Your task to perform on an android device: uninstall "Google Sheets" Image 0: 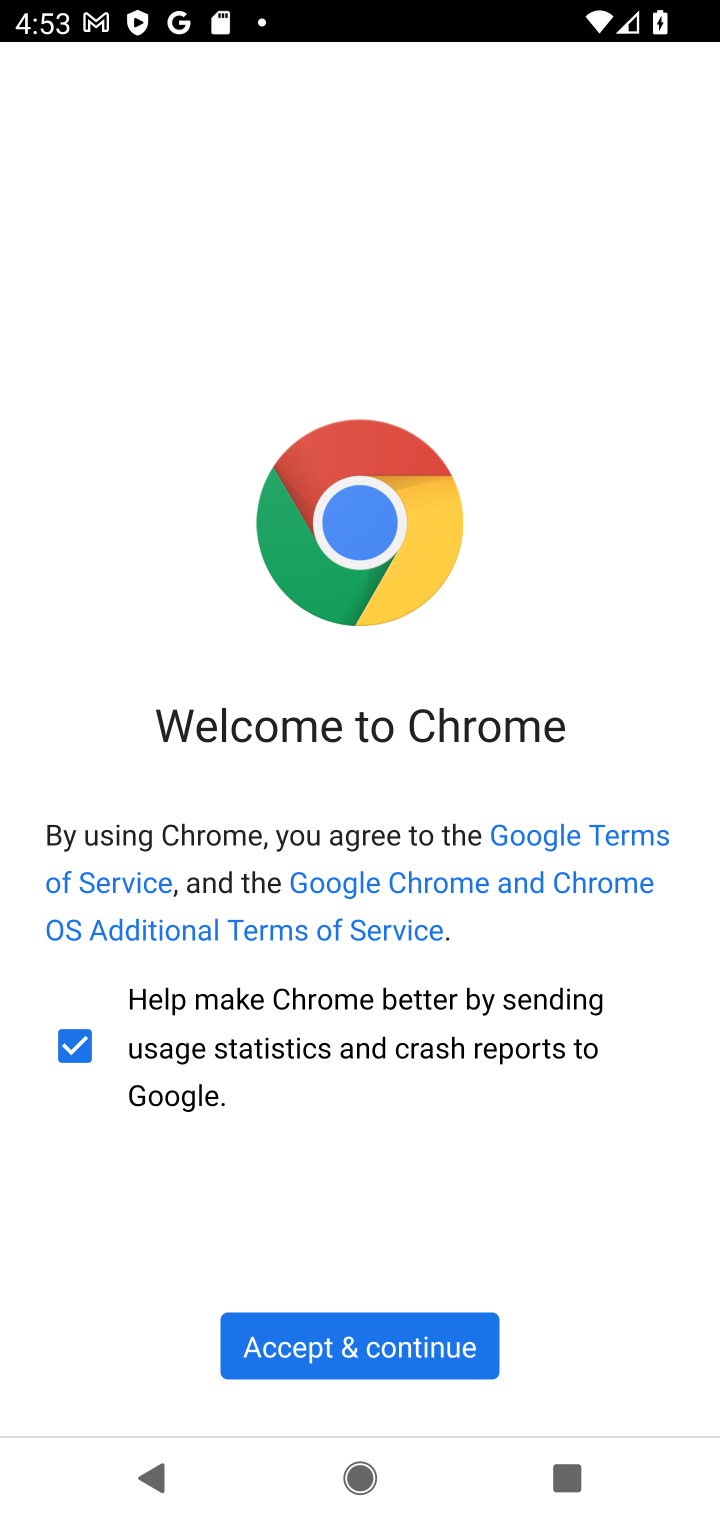
Step 0: press home button
Your task to perform on an android device: uninstall "Google Sheets" Image 1: 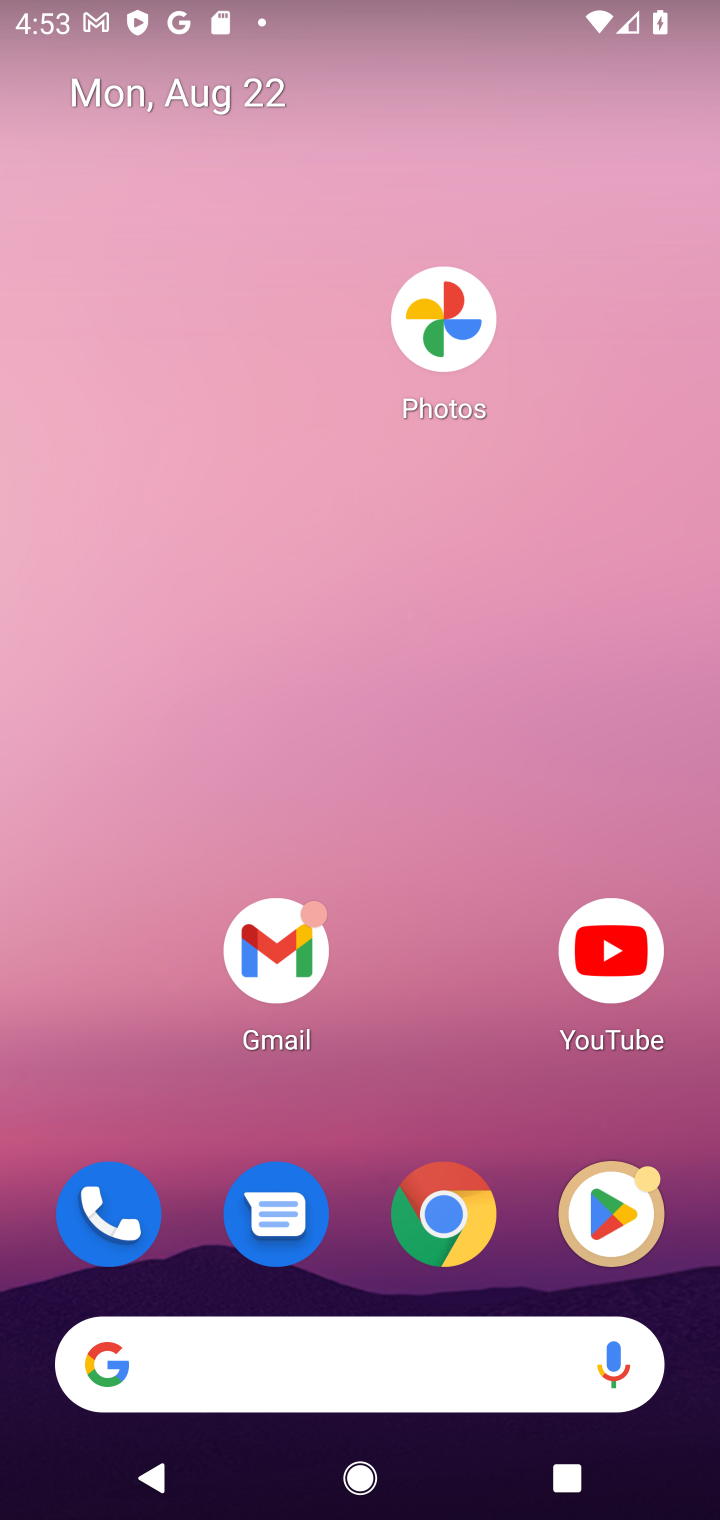
Step 1: click (608, 1211)
Your task to perform on an android device: uninstall "Google Sheets" Image 2: 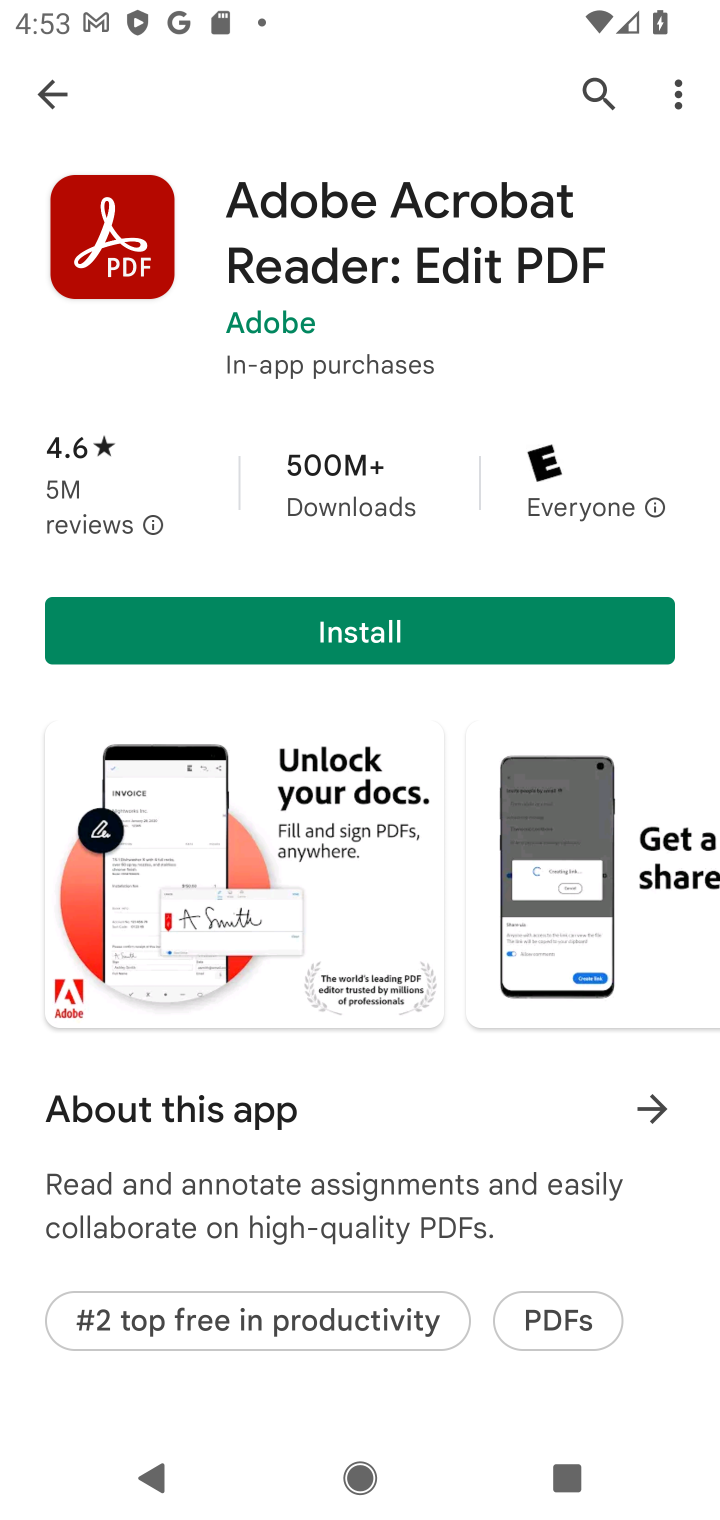
Step 2: click (593, 86)
Your task to perform on an android device: uninstall "Google Sheets" Image 3: 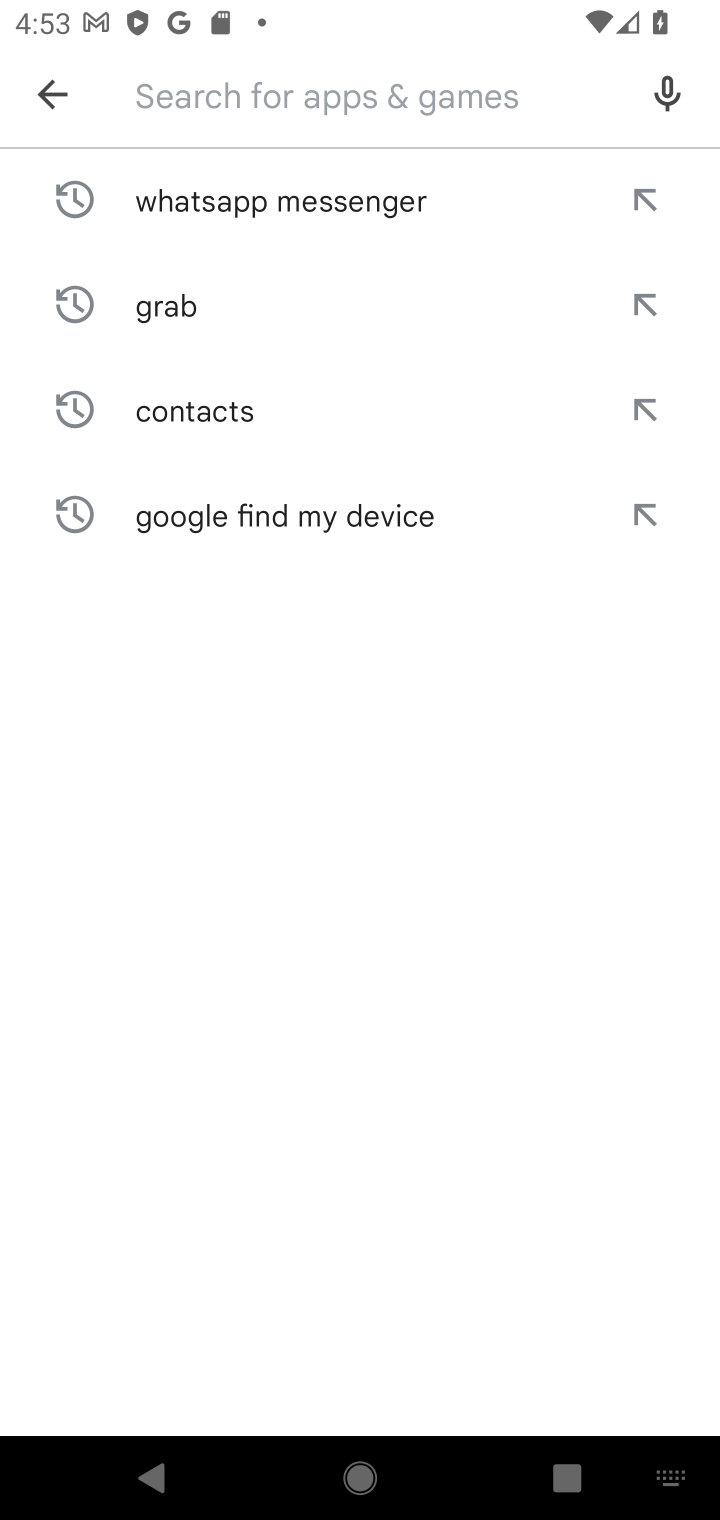
Step 3: type "Google Sheets"
Your task to perform on an android device: uninstall "Google Sheets" Image 4: 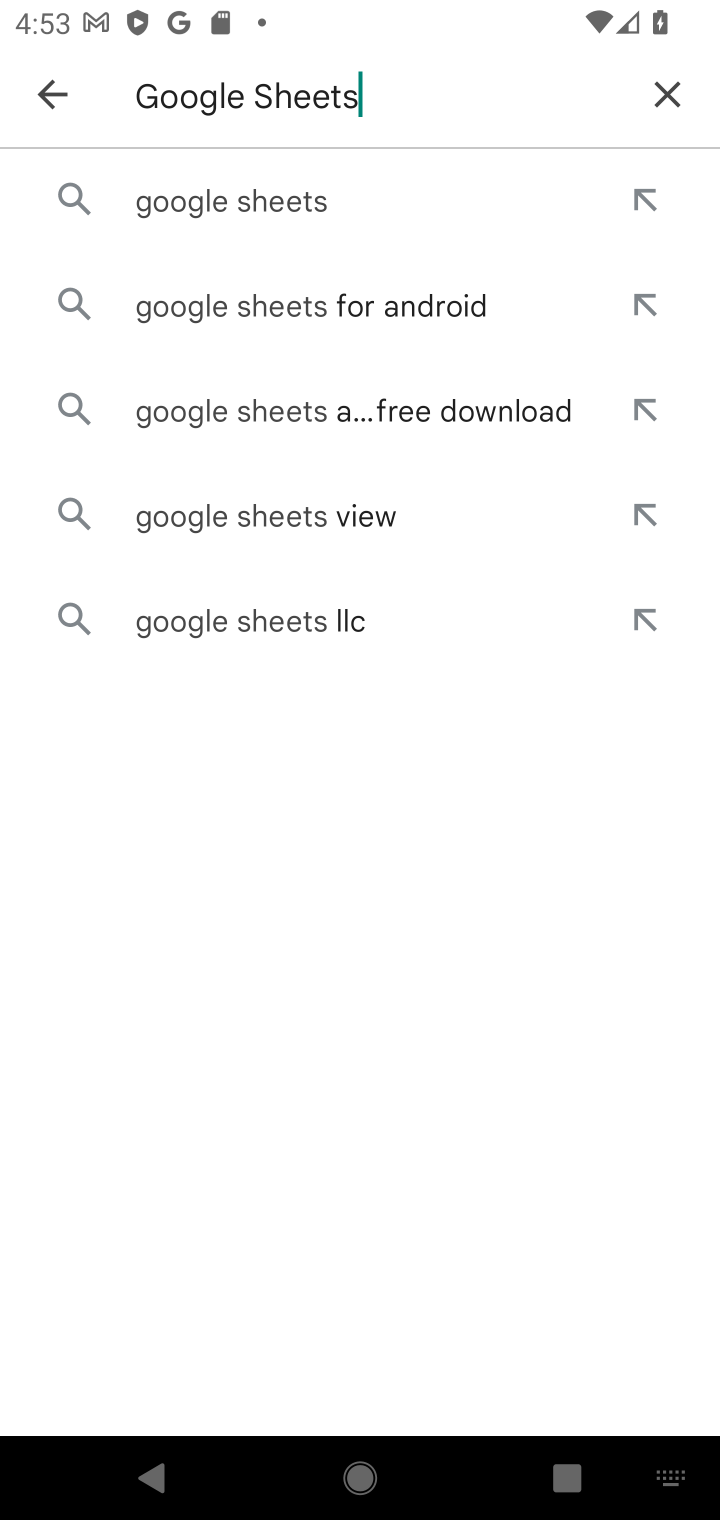
Step 4: click (182, 194)
Your task to perform on an android device: uninstall "Google Sheets" Image 5: 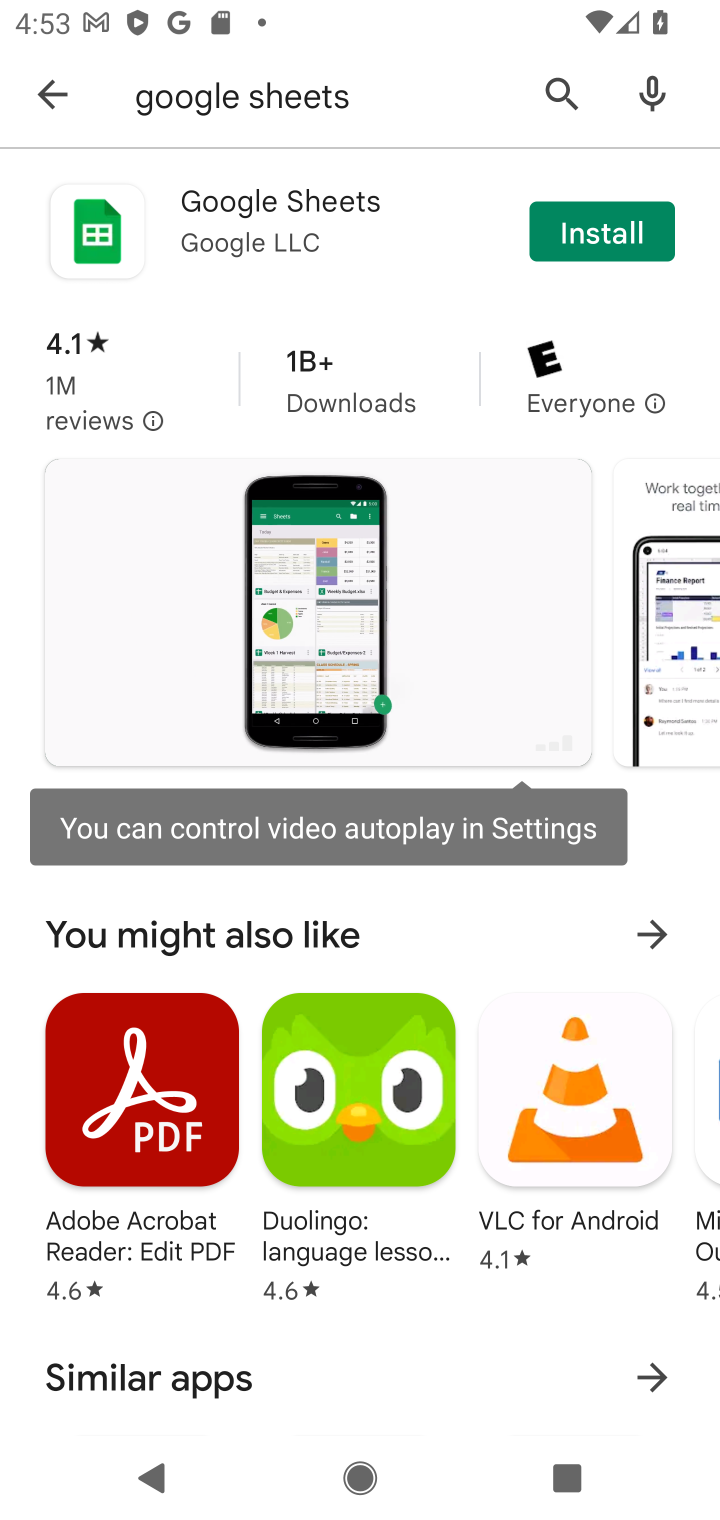
Step 5: task complete